Your task to perform on an android device: turn on the 24-hour format for clock Image 0: 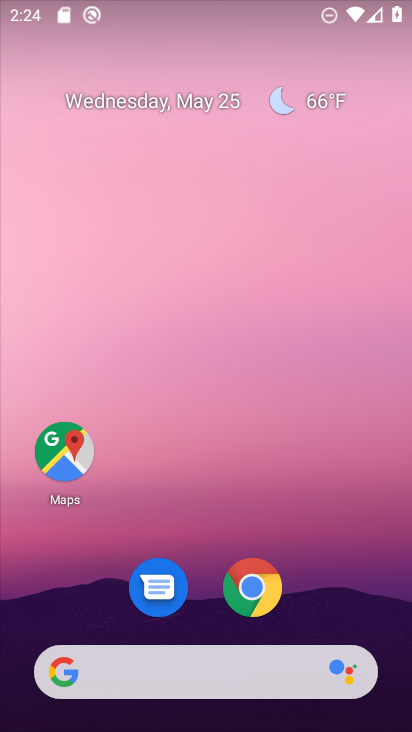
Step 0: drag from (363, 610) to (365, 152)
Your task to perform on an android device: turn on the 24-hour format for clock Image 1: 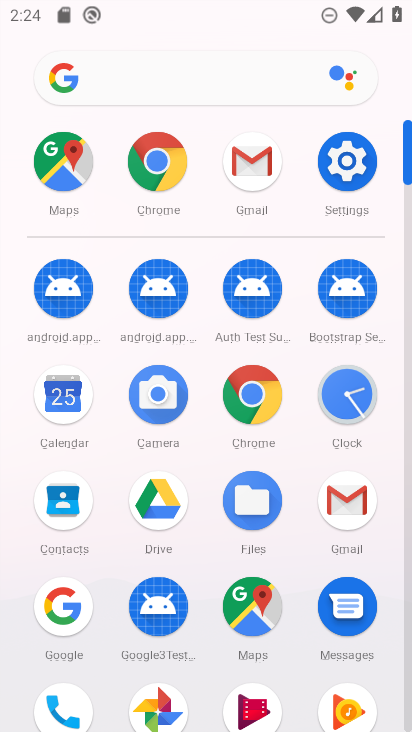
Step 1: click (338, 396)
Your task to perform on an android device: turn on the 24-hour format for clock Image 2: 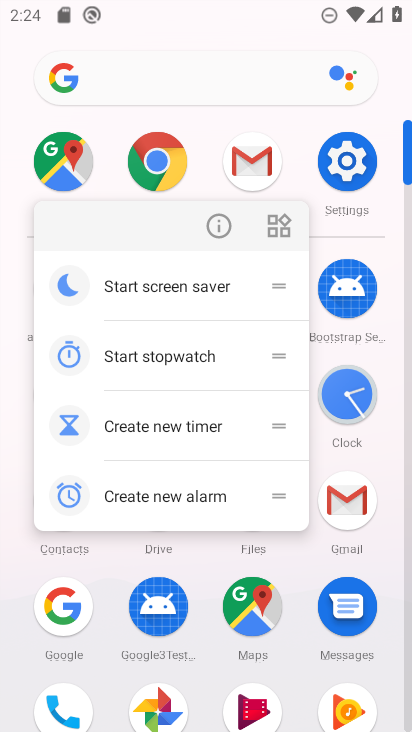
Step 2: click (338, 396)
Your task to perform on an android device: turn on the 24-hour format for clock Image 3: 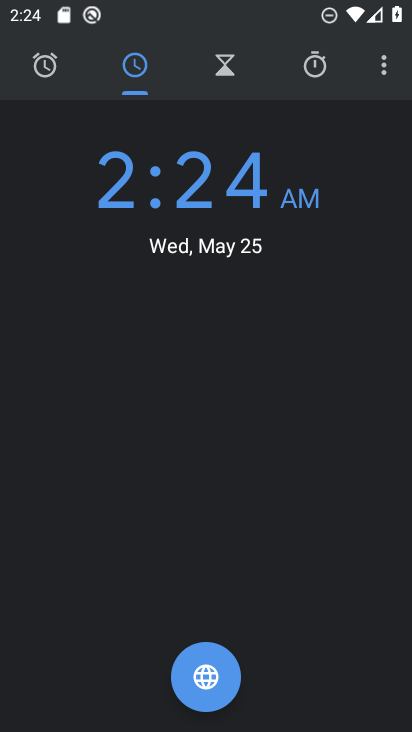
Step 3: click (385, 77)
Your task to perform on an android device: turn on the 24-hour format for clock Image 4: 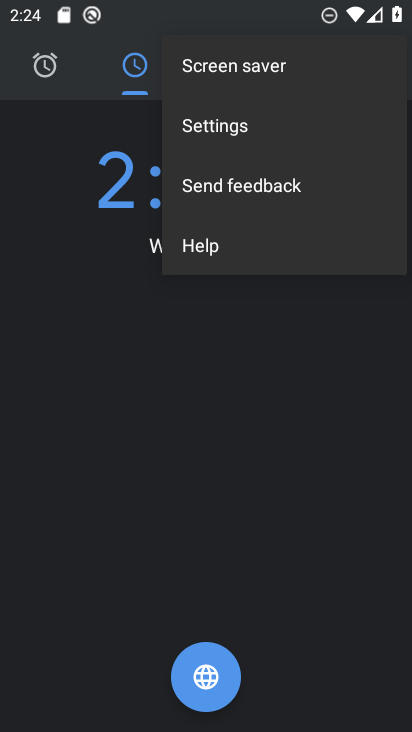
Step 4: click (228, 139)
Your task to perform on an android device: turn on the 24-hour format for clock Image 5: 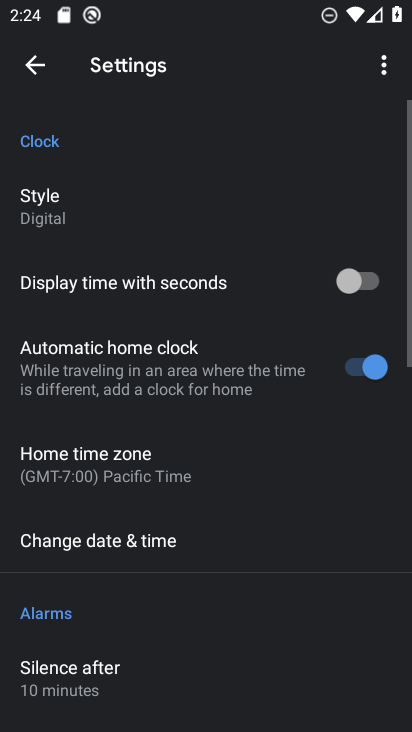
Step 5: drag from (247, 519) to (254, 453)
Your task to perform on an android device: turn on the 24-hour format for clock Image 6: 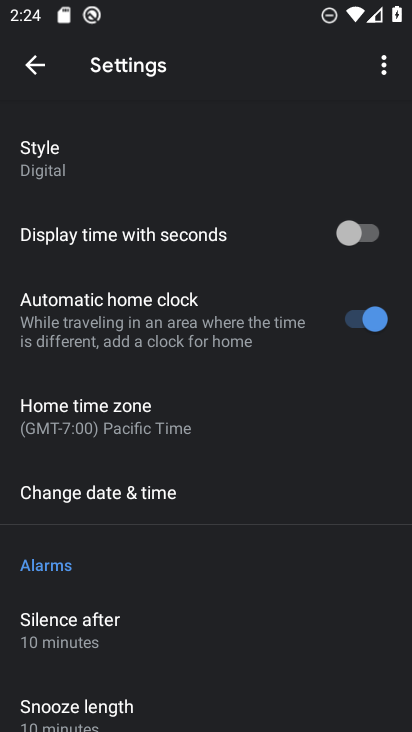
Step 6: drag from (254, 542) to (261, 445)
Your task to perform on an android device: turn on the 24-hour format for clock Image 7: 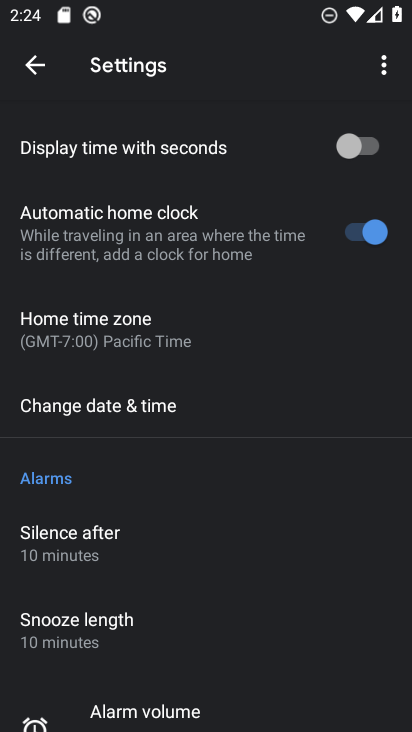
Step 7: drag from (276, 505) to (268, 423)
Your task to perform on an android device: turn on the 24-hour format for clock Image 8: 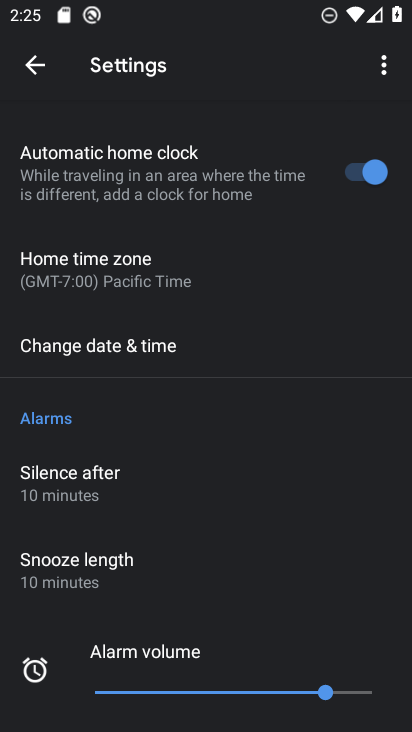
Step 8: drag from (271, 536) to (277, 445)
Your task to perform on an android device: turn on the 24-hour format for clock Image 9: 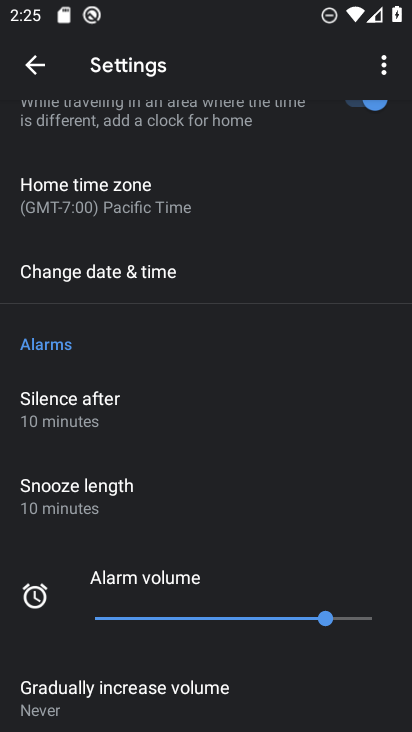
Step 9: drag from (271, 529) to (273, 379)
Your task to perform on an android device: turn on the 24-hour format for clock Image 10: 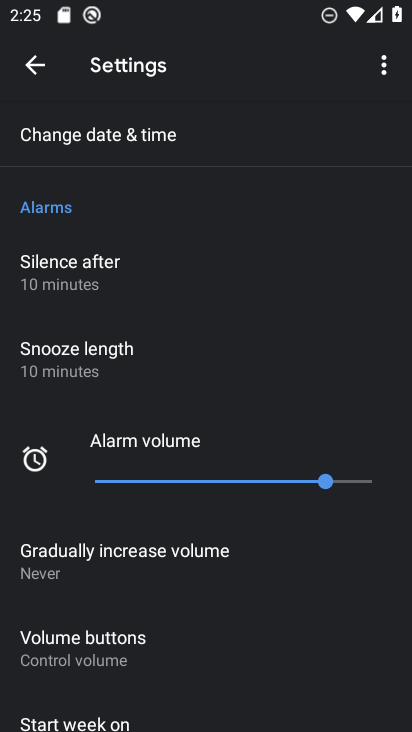
Step 10: drag from (273, 545) to (275, 465)
Your task to perform on an android device: turn on the 24-hour format for clock Image 11: 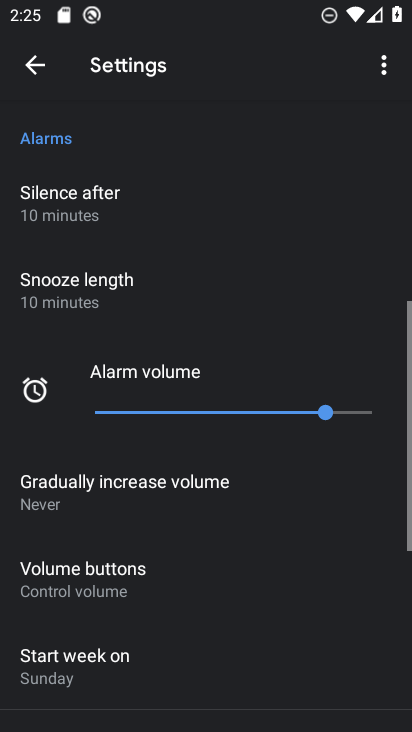
Step 11: drag from (253, 295) to (258, 400)
Your task to perform on an android device: turn on the 24-hour format for clock Image 12: 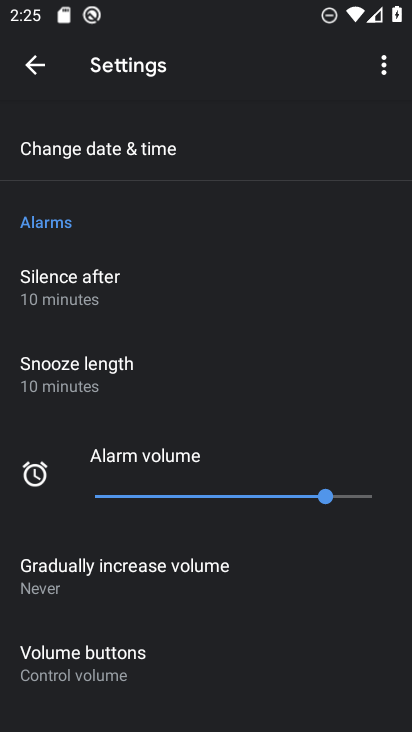
Step 12: drag from (249, 257) to (255, 390)
Your task to perform on an android device: turn on the 24-hour format for clock Image 13: 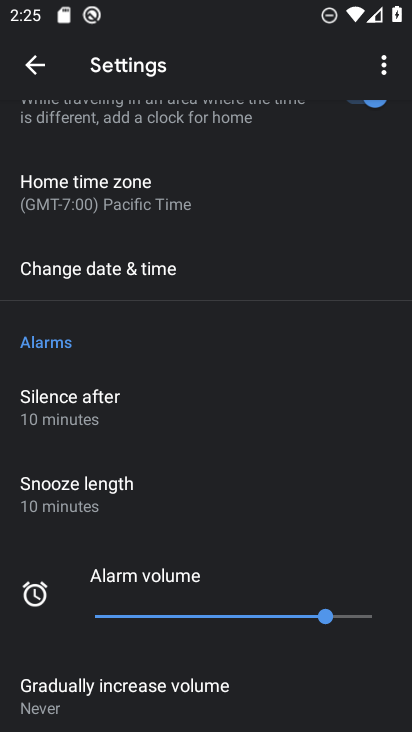
Step 13: click (167, 273)
Your task to perform on an android device: turn on the 24-hour format for clock Image 14: 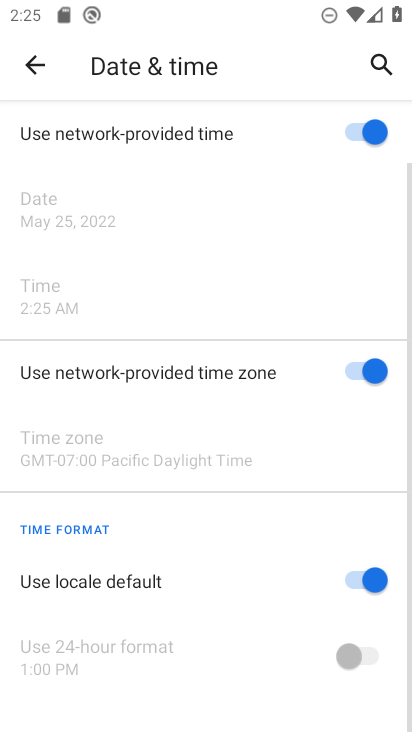
Step 14: drag from (267, 508) to (272, 434)
Your task to perform on an android device: turn on the 24-hour format for clock Image 15: 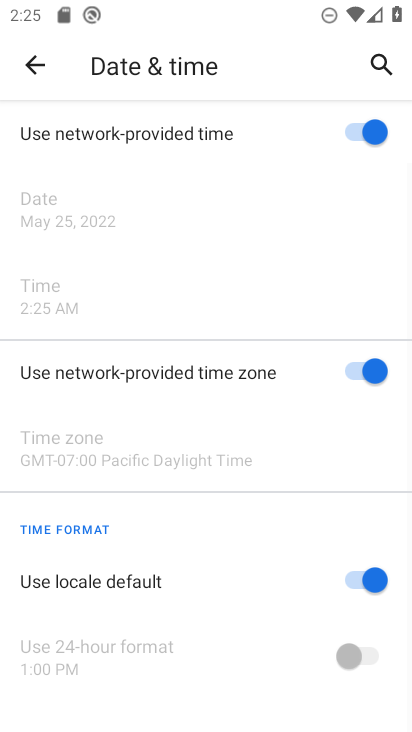
Step 15: click (344, 571)
Your task to perform on an android device: turn on the 24-hour format for clock Image 16: 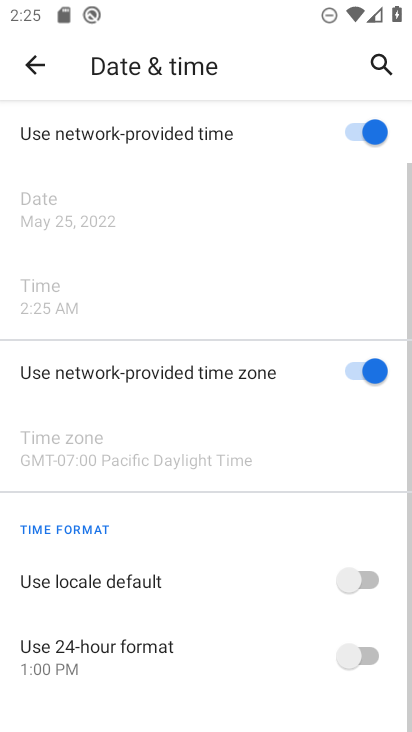
Step 16: click (338, 659)
Your task to perform on an android device: turn on the 24-hour format for clock Image 17: 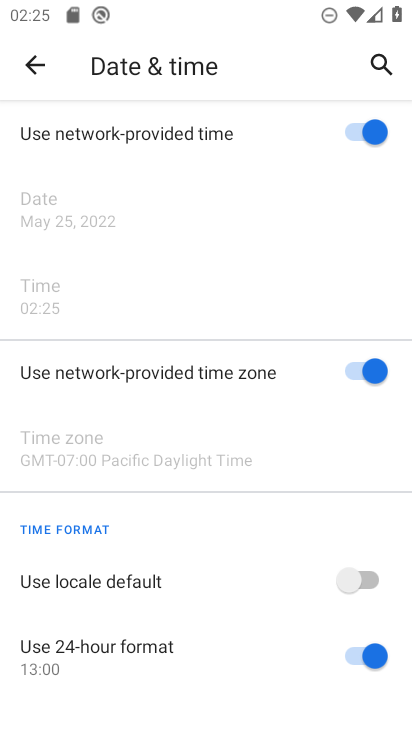
Step 17: task complete